Your task to perform on an android device: open the mobile data screen to see how much data has been used Image 0: 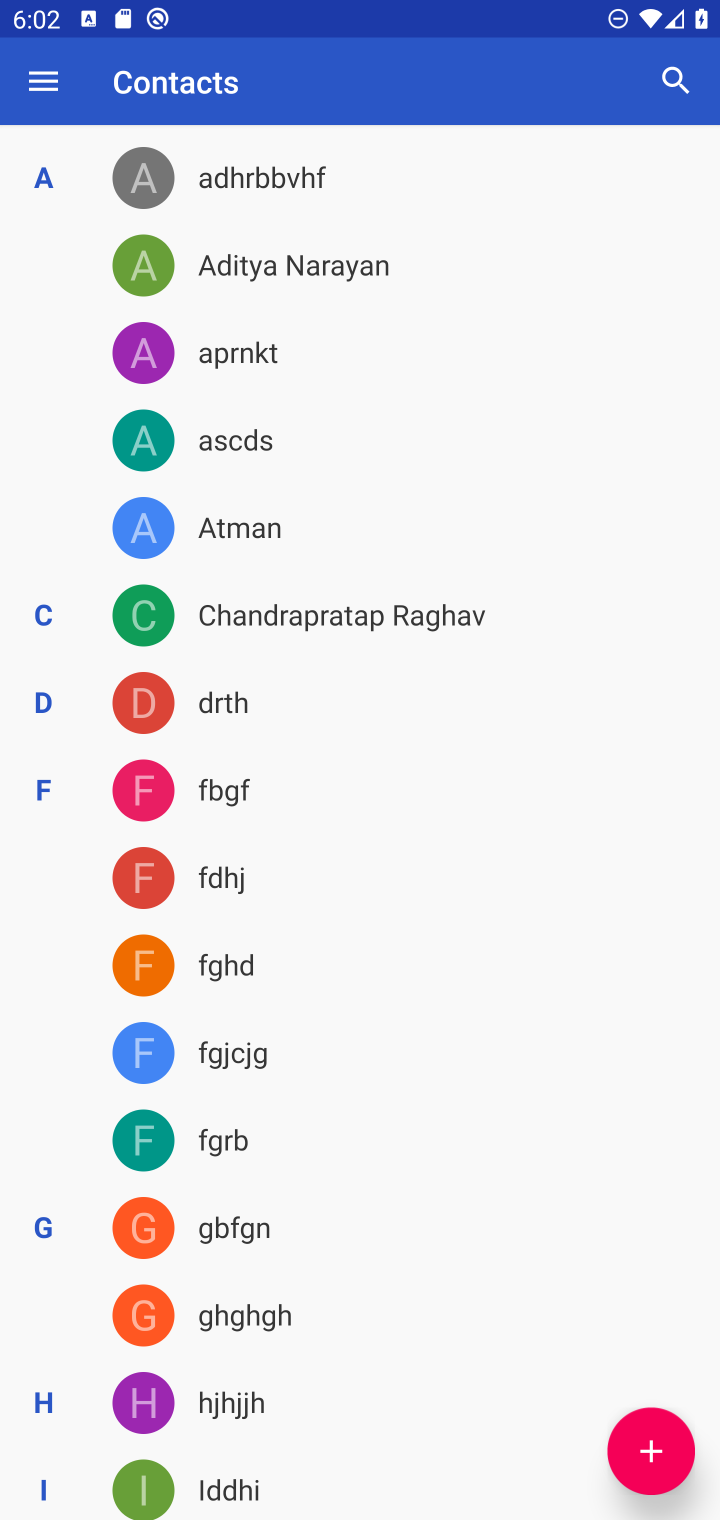
Step 0: press home button
Your task to perform on an android device: open the mobile data screen to see how much data has been used Image 1: 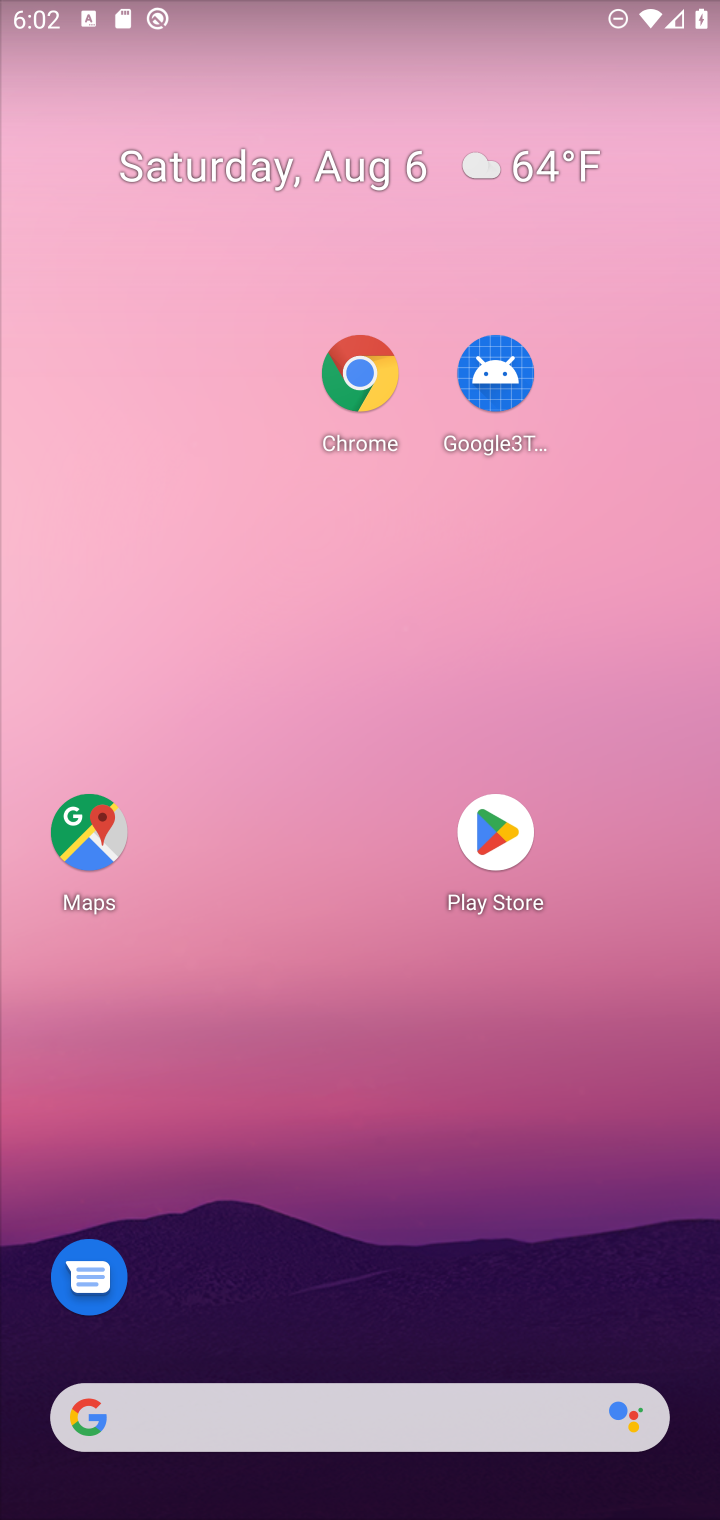
Step 1: drag from (334, 1412) to (164, 33)
Your task to perform on an android device: open the mobile data screen to see how much data has been used Image 2: 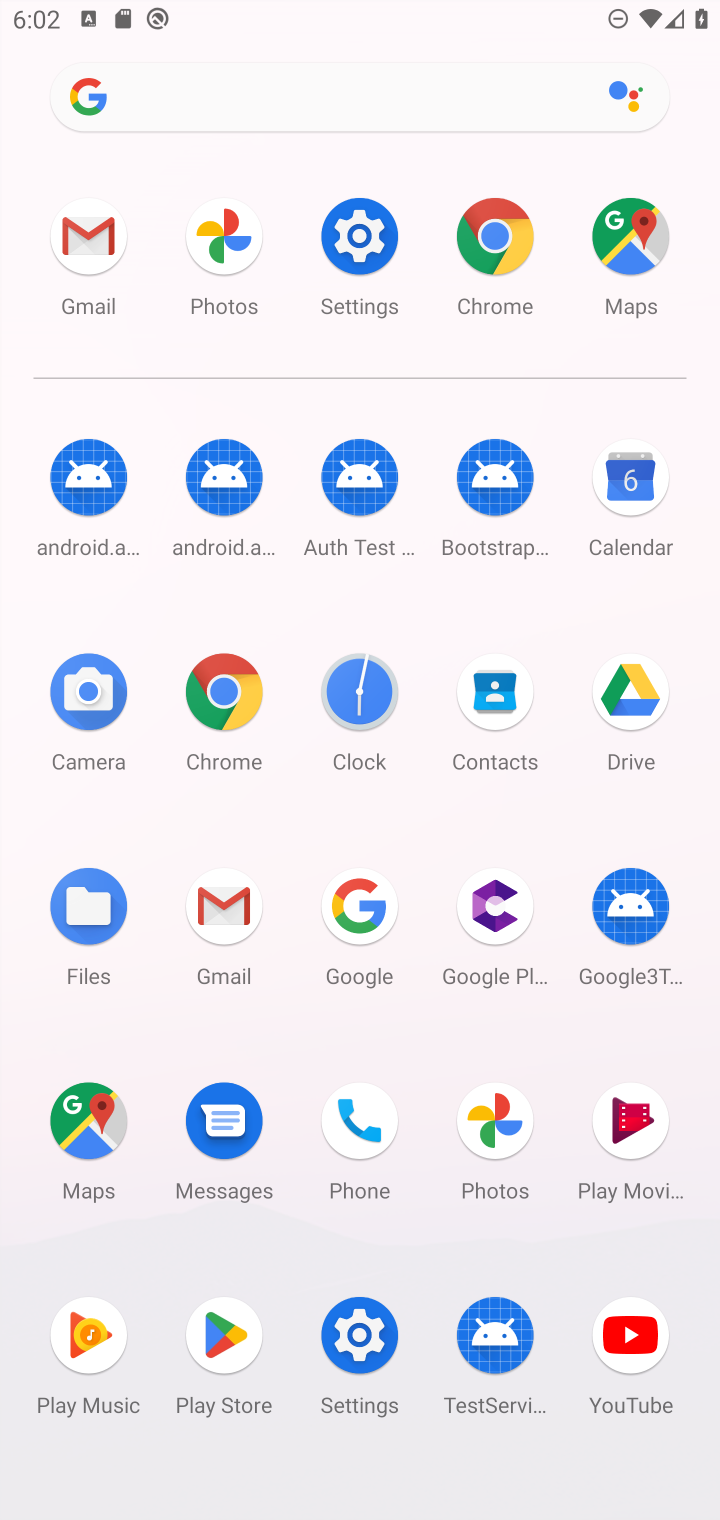
Step 2: click (338, 228)
Your task to perform on an android device: open the mobile data screen to see how much data has been used Image 3: 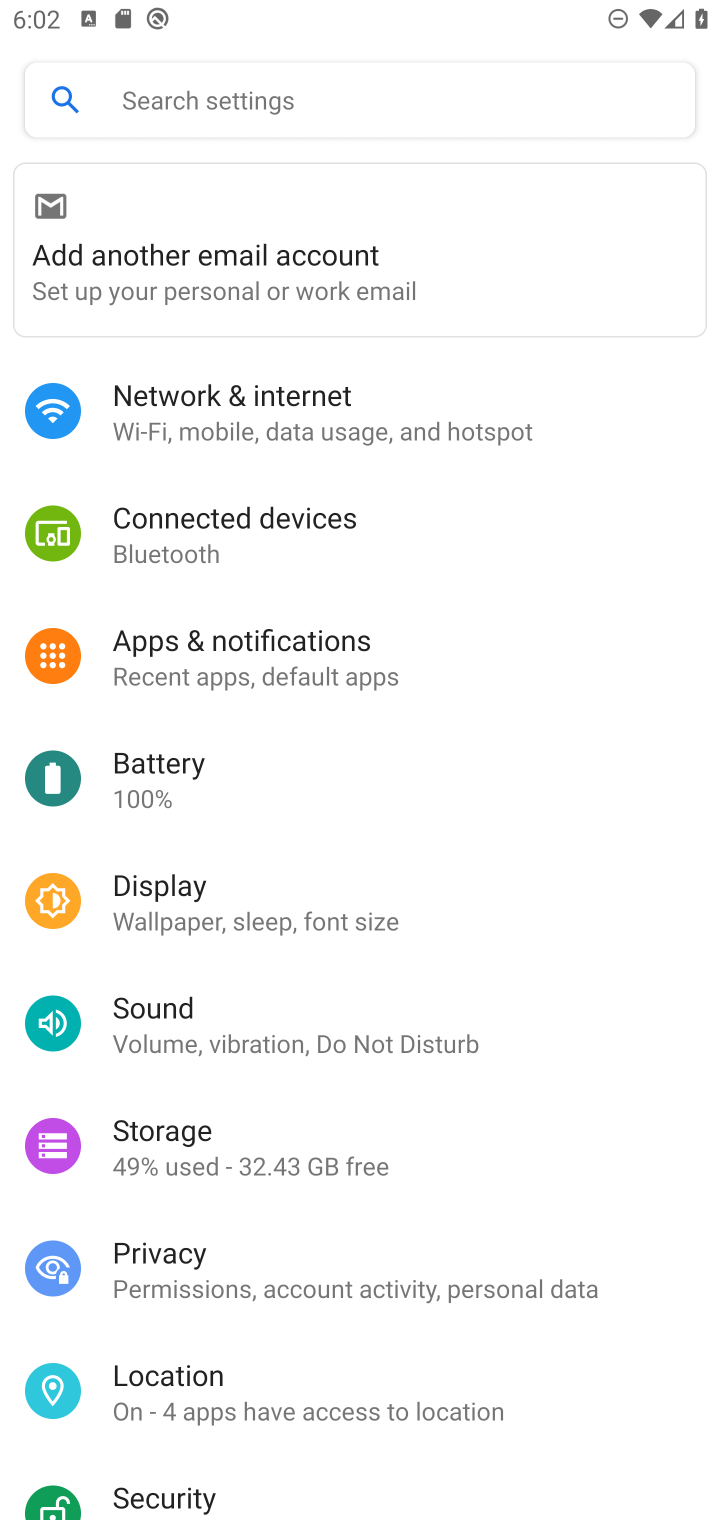
Step 3: click (267, 407)
Your task to perform on an android device: open the mobile data screen to see how much data has been used Image 4: 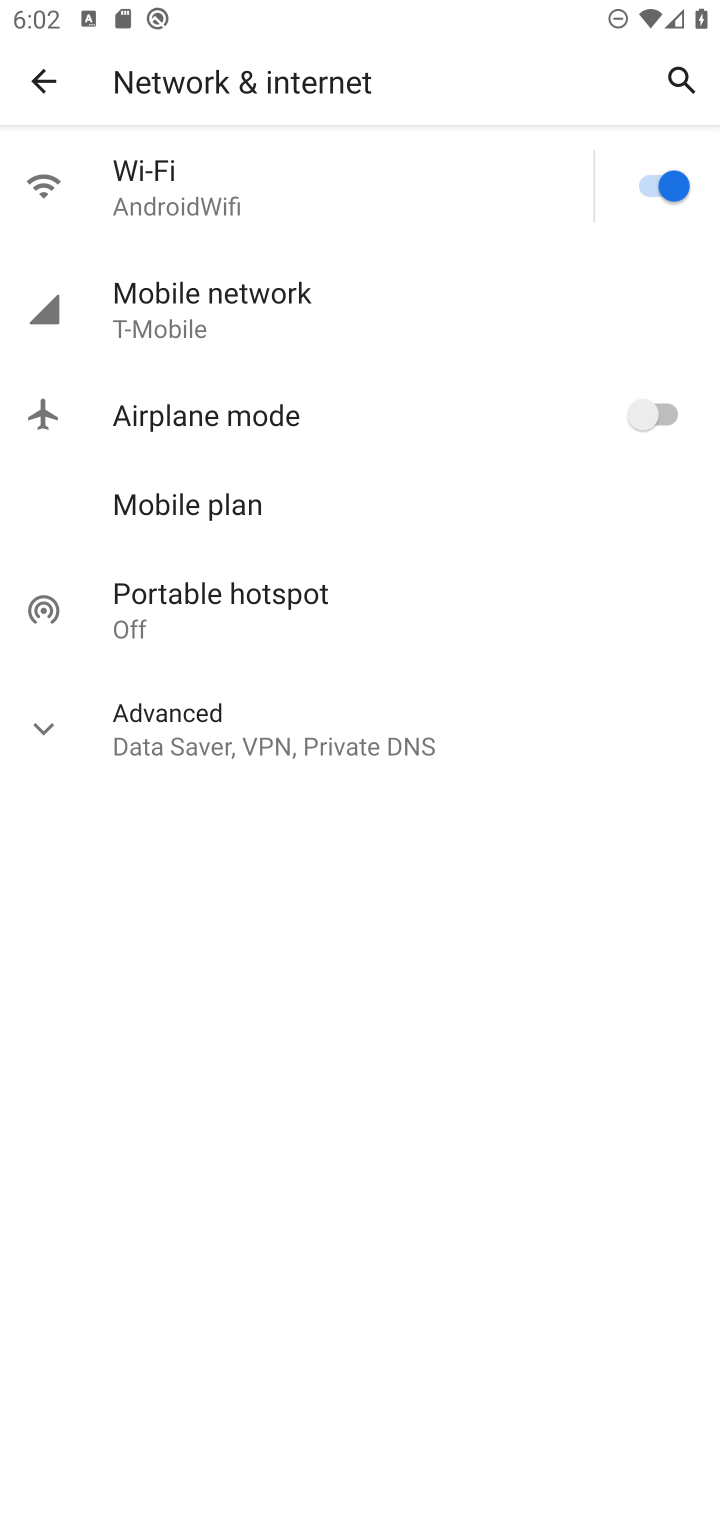
Step 4: click (211, 308)
Your task to perform on an android device: open the mobile data screen to see how much data has been used Image 5: 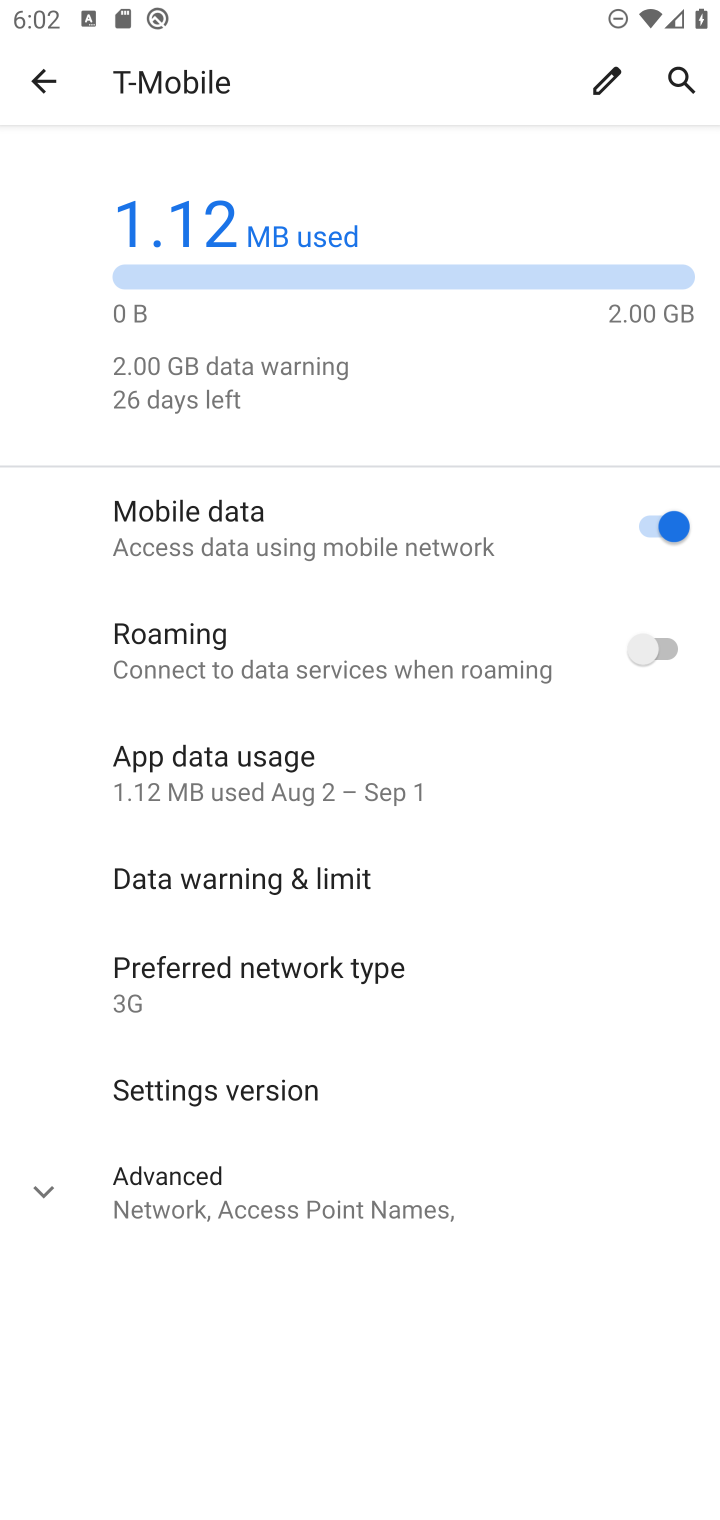
Step 5: task complete